Your task to perform on an android device: Open the phone app and click the voicemail tab. Image 0: 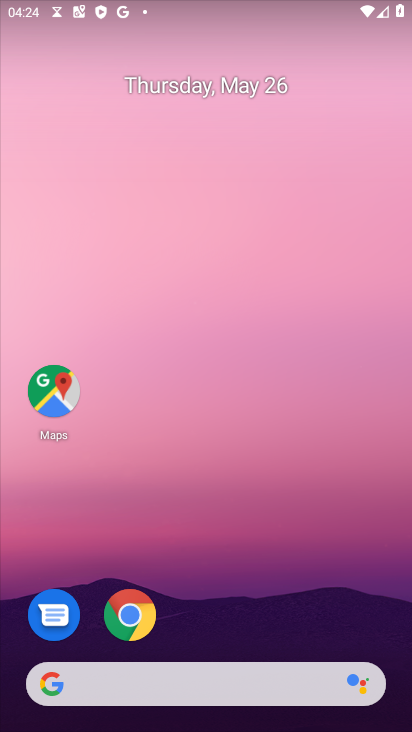
Step 0: drag from (199, 629) to (161, 129)
Your task to perform on an android device: Open the phone app and click the voicemail tab. Image 1: 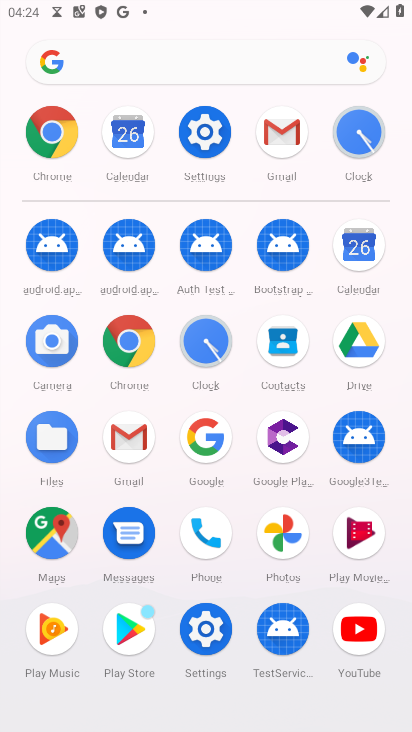
Step 1: click (211, 540)
Your task to perform on an android device: Open the phone app and click the voicemail tab. Image 2: 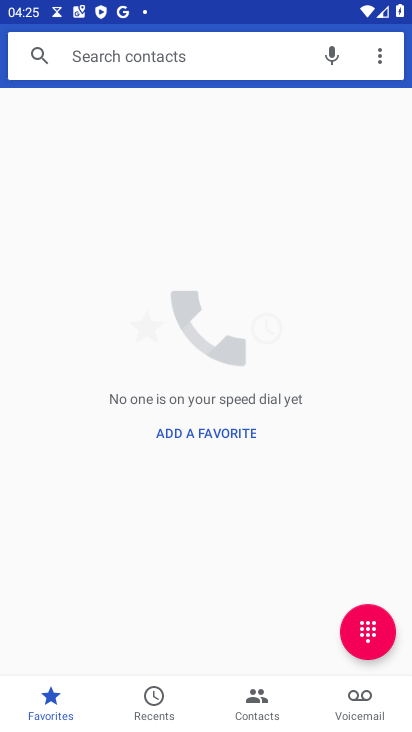
Step 2: click (361, 691)
Your task to perform on an android device: Open the phone app and click the voicemail tab. Image 3: 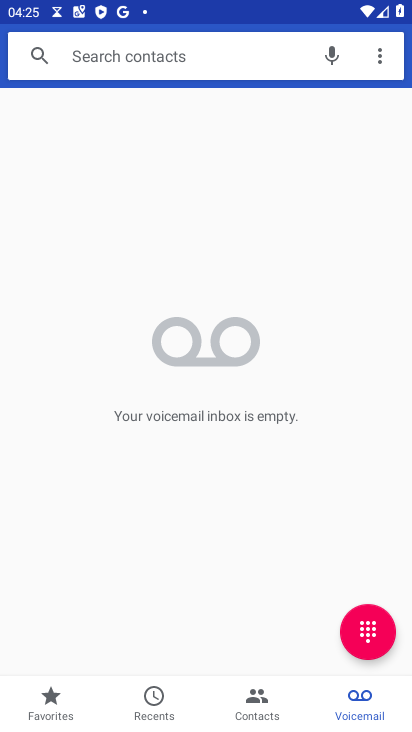
Step 3: task complete